Your task to perform on an android device: Open notification settings Image 0: 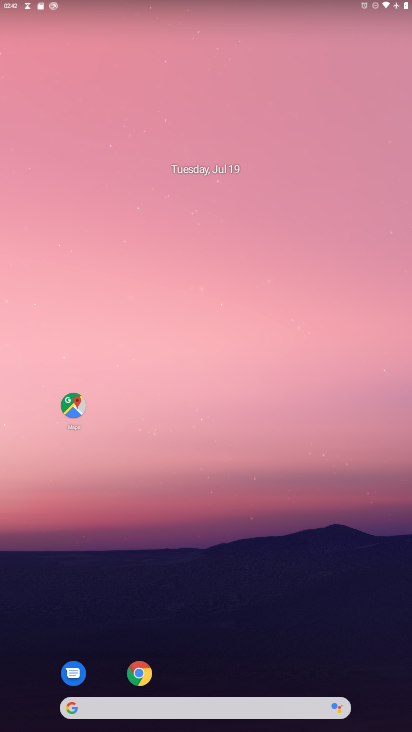
Step 0: drag from (282, 687) to (275, 273)
Your task to perform on an android device: Open notification settings Image 1: 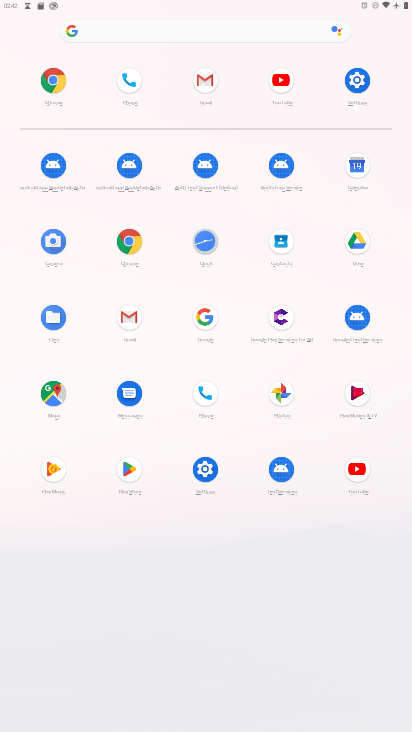
Step 1: click (359, 86)
Your task to perform on an android device: Open notification settings Image 2: 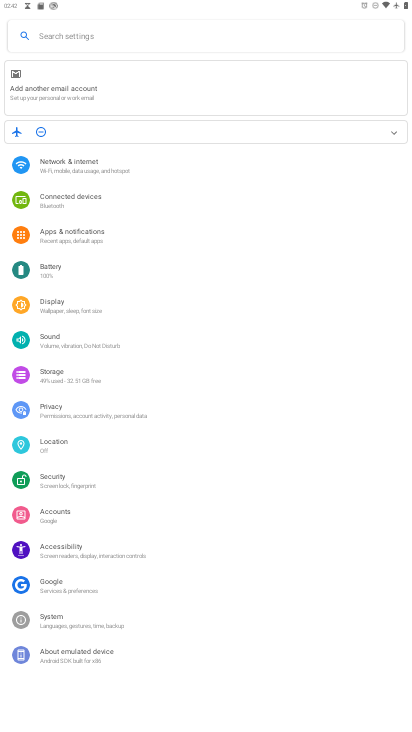
Step 2: click (84, 234)
Your task to perform on an android device: Open notification settings Image 3: 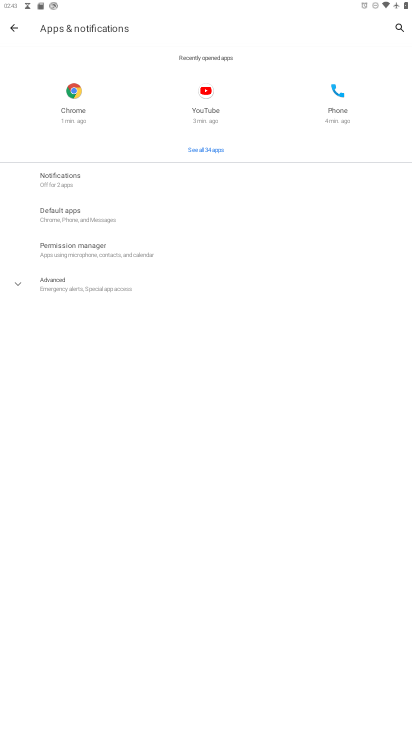
Step 3: task complete